Your task to perform on an android device: Go to Google Image 0: 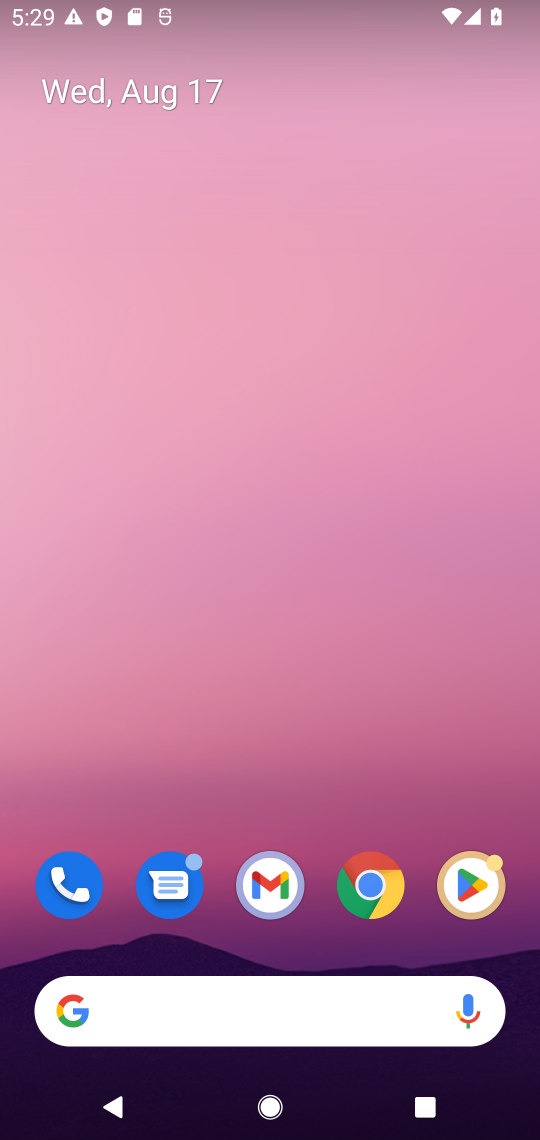
Step 0: drag from (303, 743) to (455, 124)
Your task to perform on an android device: Go to Google Image 1: 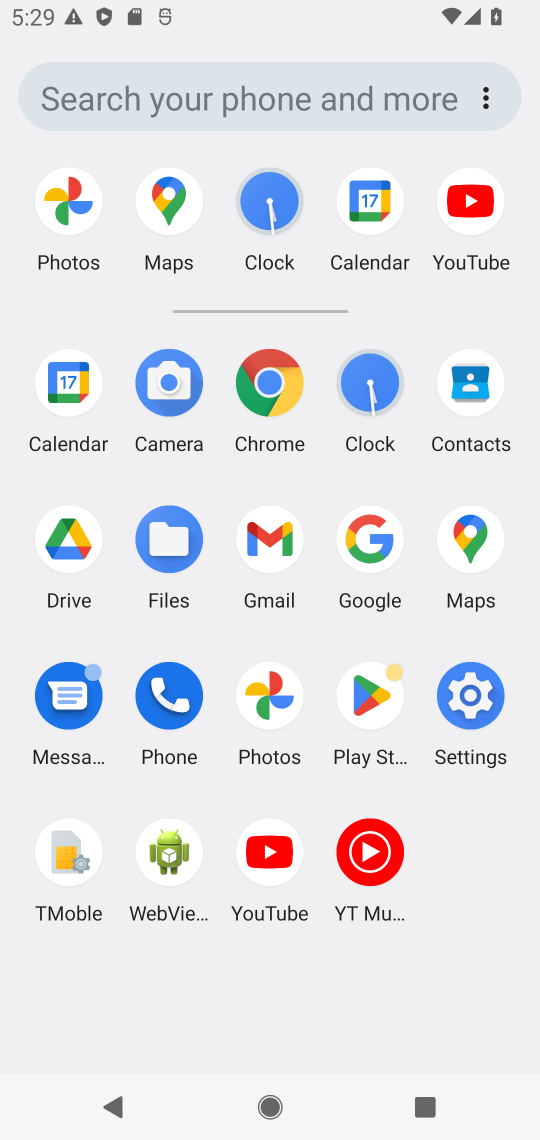
Step 1: click (365, 536)
Your task to perform on an android device: Go to Google Image 2: 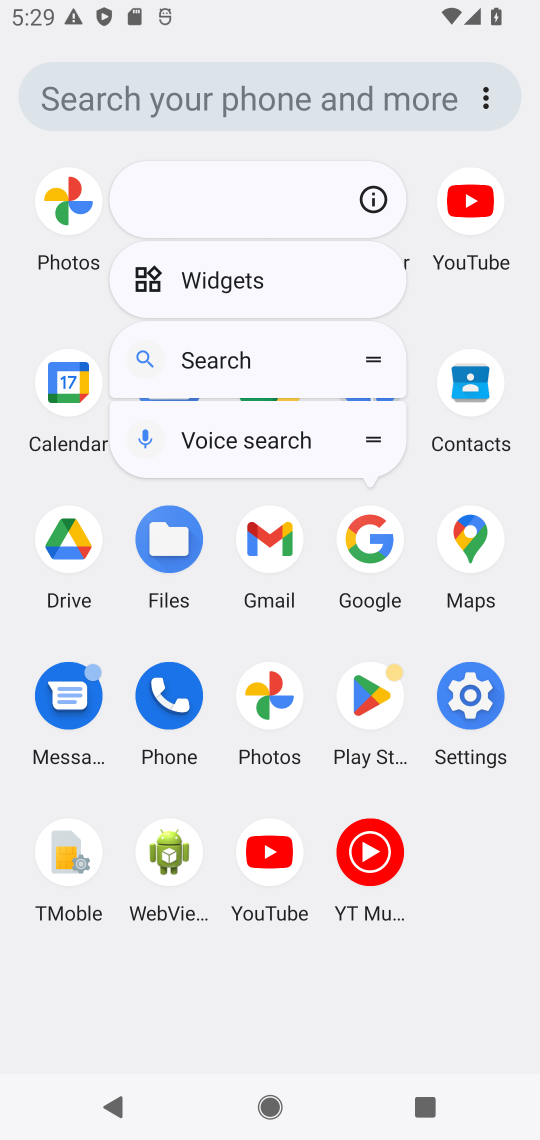
Step 2: click (365, 536)
Your task to perform on an android device: Go to Google Image 3: 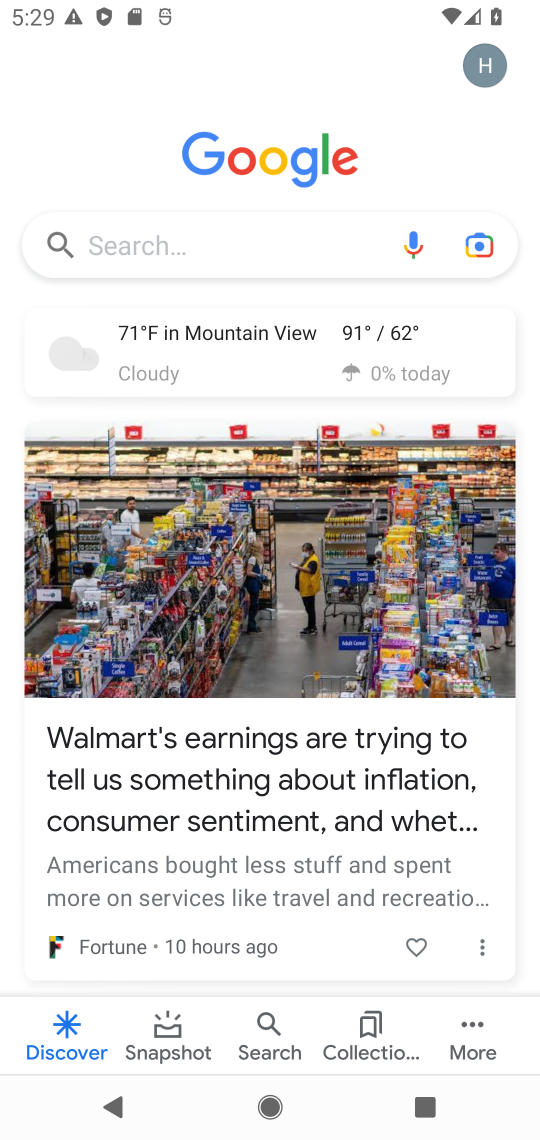
Step 3: task complete